Your task to perform on an android device: set an alarm Image 0: 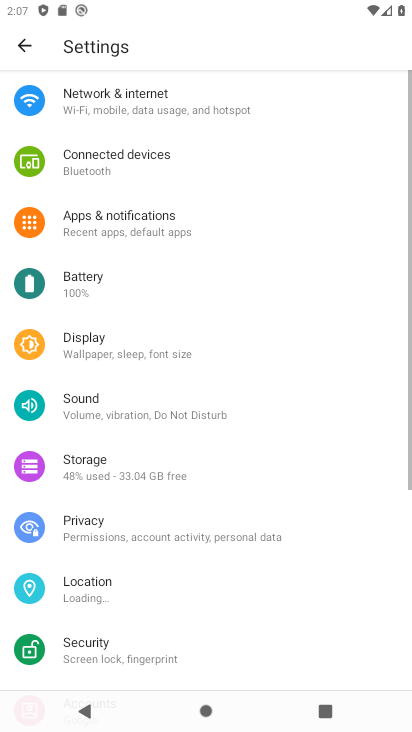
Step 0: drag from (245, 572) to (272, 339)
Your task to perform on an android device: set an alarm Image 1: 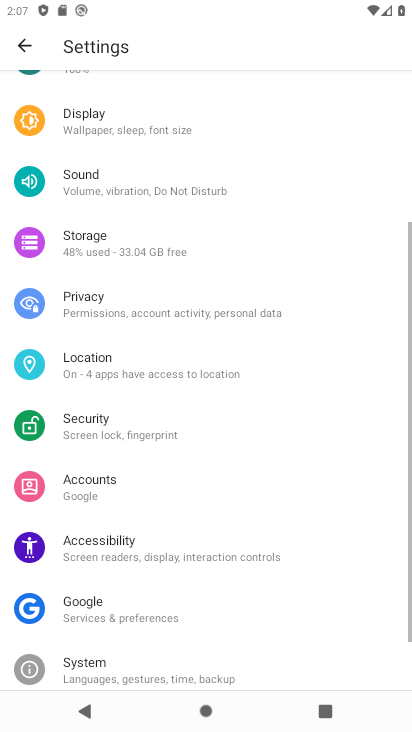
Step 1: press home button
Your task to perform on an android device: set an alarm Image 2: 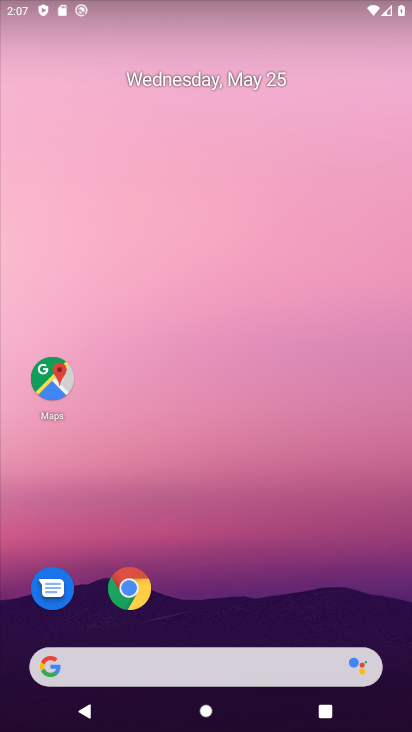
Step 2: drag from (266, 524) to (213, 23)
Your task to perform on an android device: set an alarm Image 3: 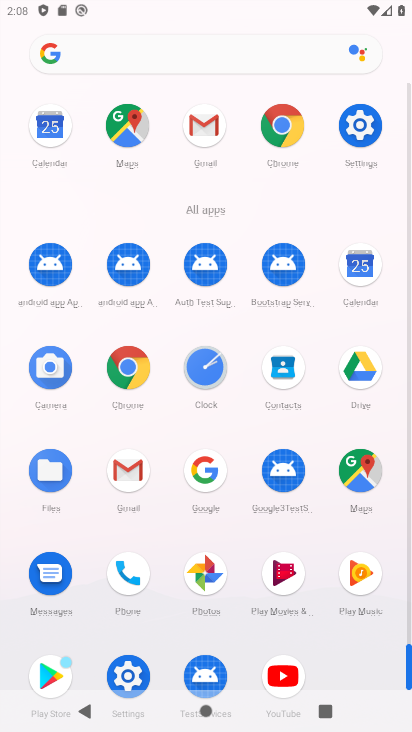
Step 3: click (205, 361)
Your task to perform on an android device: set an alarm Image 4: 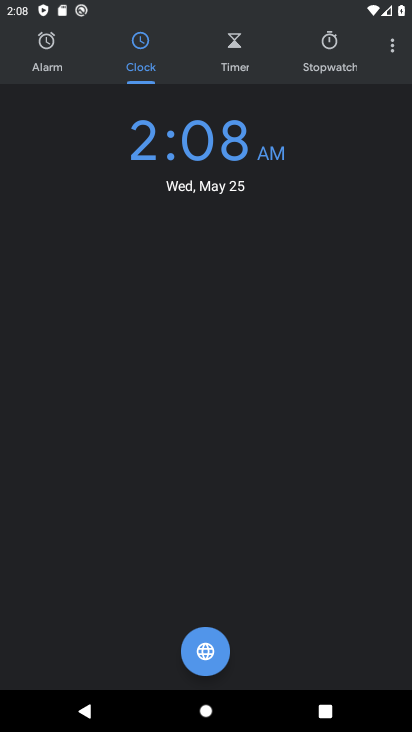
Step 4: click (59, 64)
Your task to perform on an android device: set an alarm Image 5: 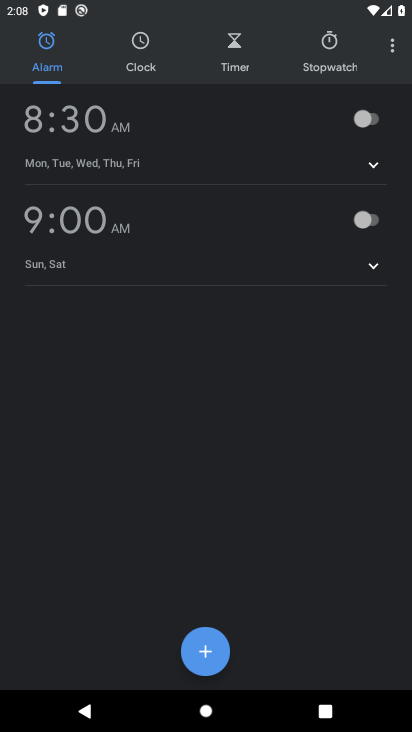
Step 5: click (210, 642)
Your task to perform on an android device: set an alarm Image 6: 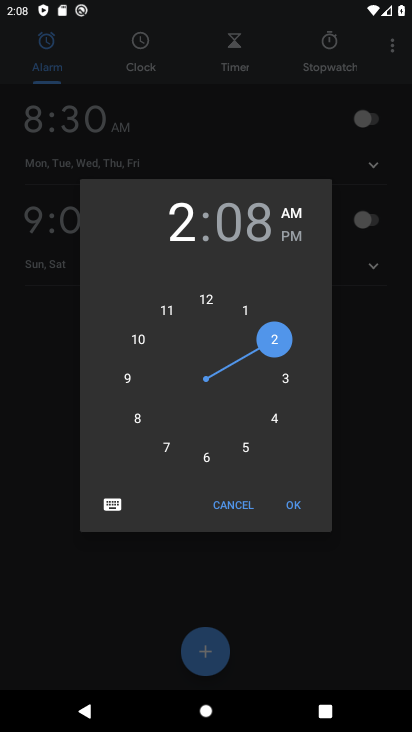
Step 6: click (294, 500)
Your task to perform on an android device: set an alarm Image 7: 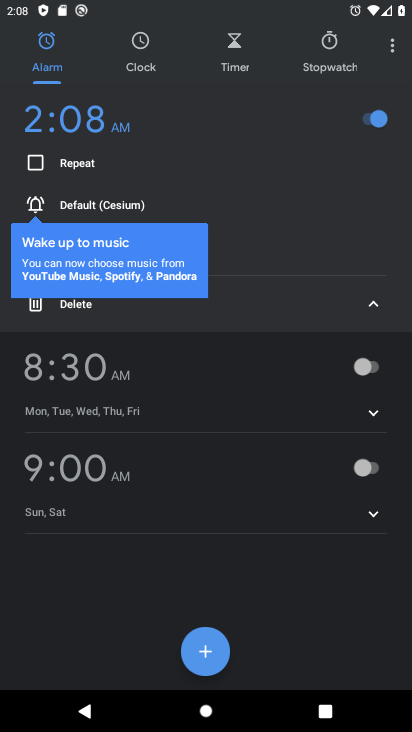
Step 7: task complete